Your task to perform on an android device: What is the news today? Image 0: 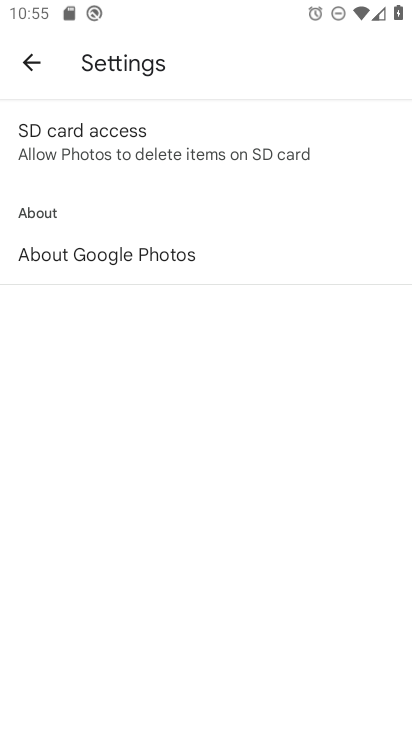
Step 0: press home button
Your task to perform on an android device: What is the news today? Image 1: 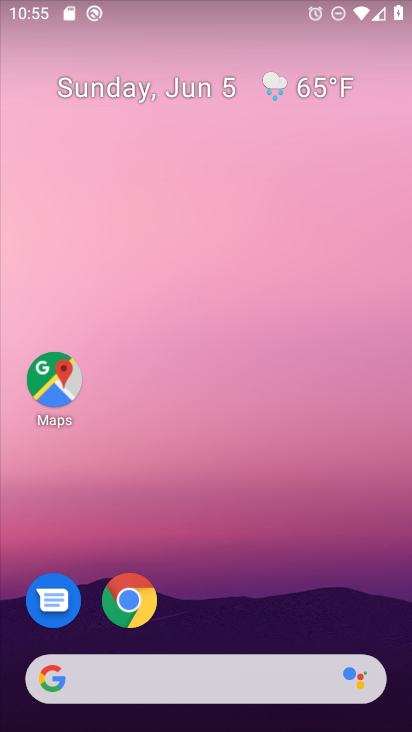
Step 1: drag from (376, 608) to (304, 83)
Your task to perform on an android device: What is the news today? Image 2: 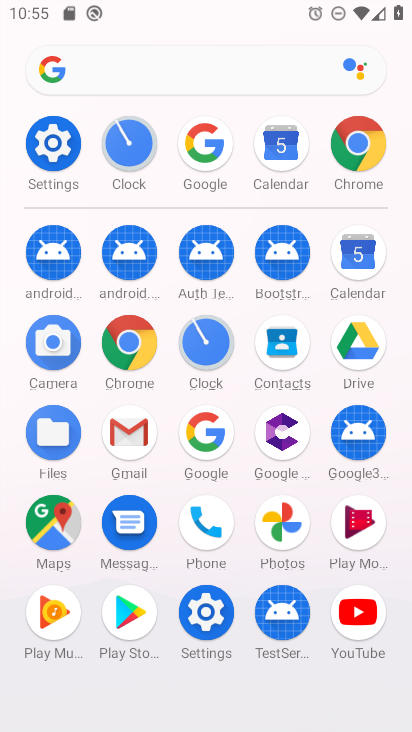
Step 2: click (192, 440)
Your task to perform on an android device: What is the news today? Image 3: 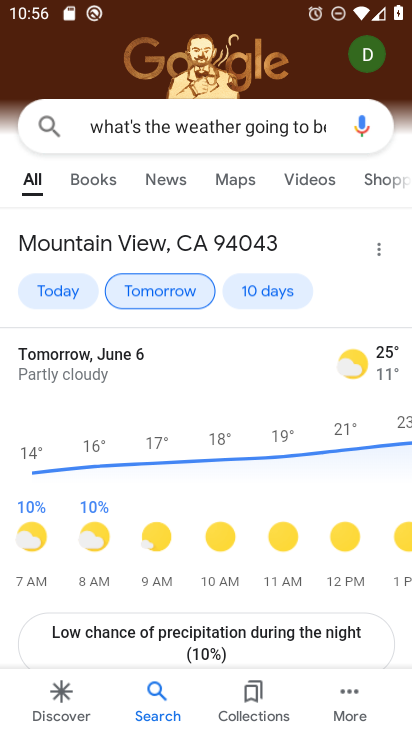
Step 3: press back button
Your task to perform on an android device: What is the news today? Image 4: 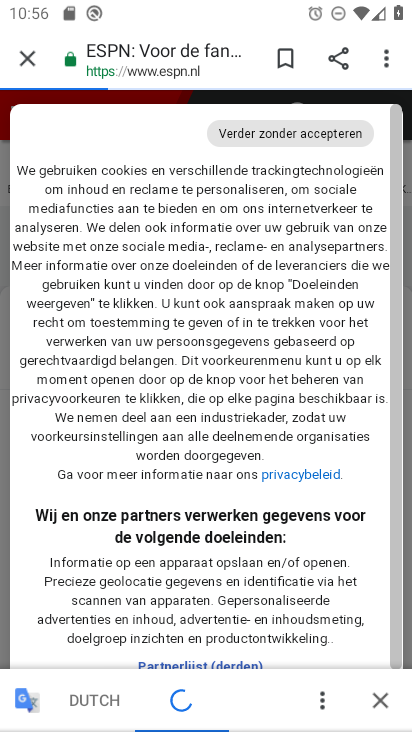
Step 4: press back button
Your task to perform on an android device: What is the news today? Image 5: 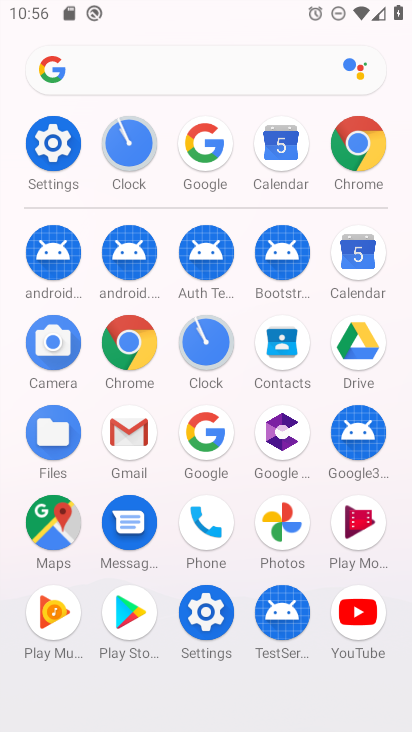
Step 5: click (199, 166)
Your task to perform on an android device: What is the news today? Image 6: 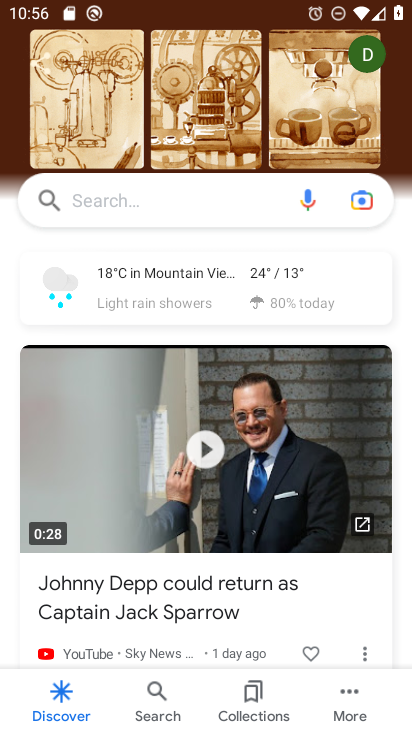
Step 6: click (66, 192)
Your task to perform on an android device: What is the news today? Image 7: 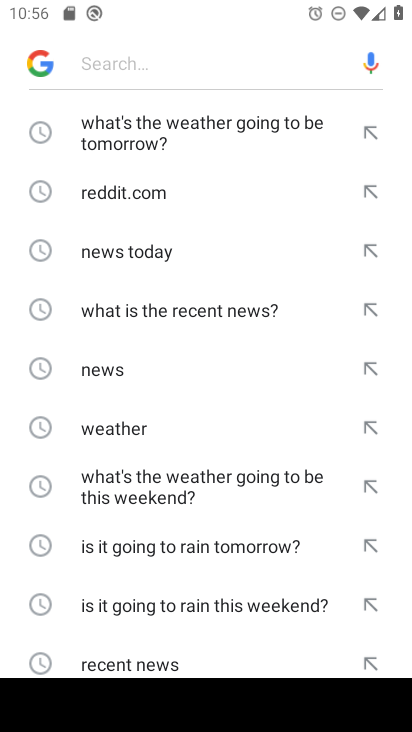
Step 7: drag from (190, 625) to (237, 208)
Your task to perform on an android device: What is the news today? Image 8: 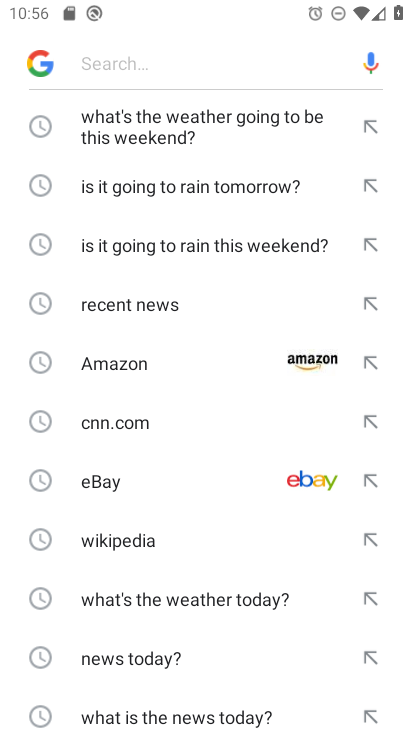
Step 8: click (195, 707)
Your task to perform on an android device: What is the news today? Image 9: 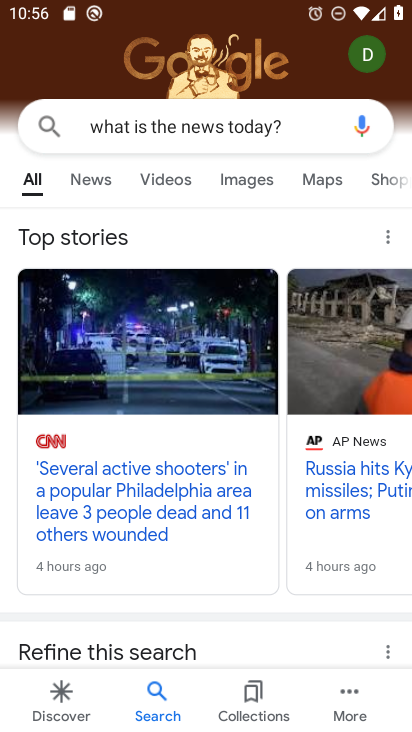
Step 9: task complete